Your task to perform on an android device: Install the Twitter app Image 0: 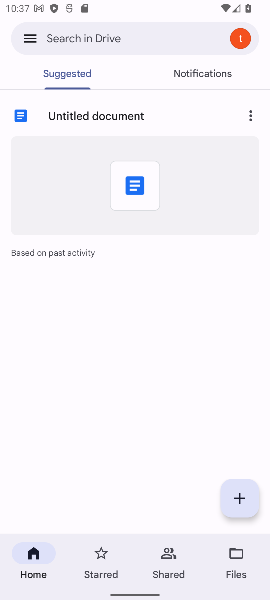
Step 0: press home button
Your task to perform on an android device: Install the Twitter app Image 1: 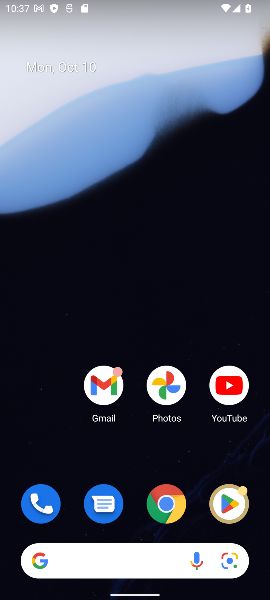
Step 1: click (226, 502)
Your task to perform on an android device: Install the Twitter app Image 2: 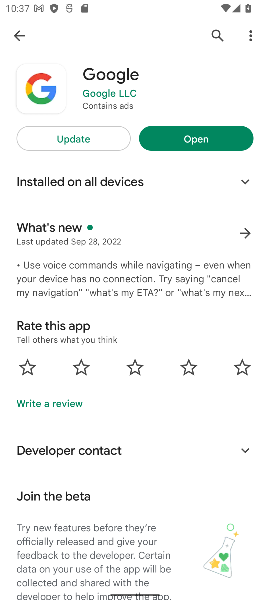
Step 2: click (211, 37)
Your task to perform on an android device: Install the Twitter app Image 3: 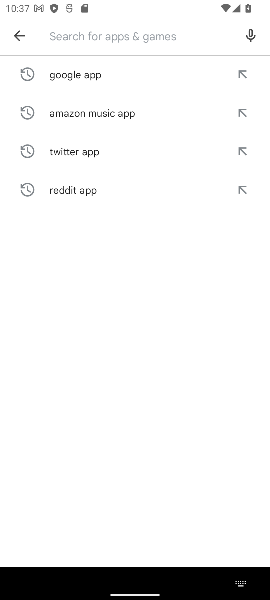
Step 3: type "Twitter app"
Your task to perform on an android device: Install the Twitter app Image 4: 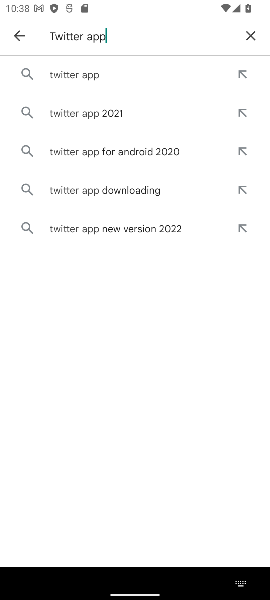
Step 4: click (75, 72)
Your task to perform on an android device: Install the Twitter app Image 5: 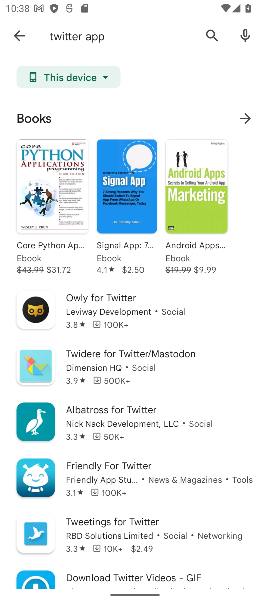
Step 5: task complete